Your task to perform on an android device: toggle airplane mode Image 0: 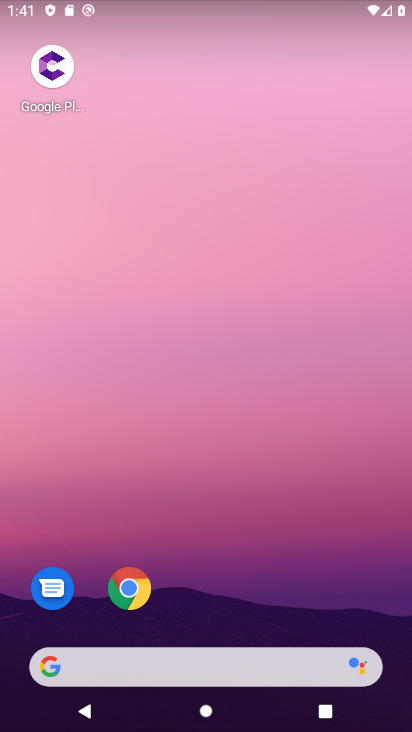
Step 0: drag from (178, 15) to (223, 651)
Your task to perform on an android device: toggle airplane mode Image 1: 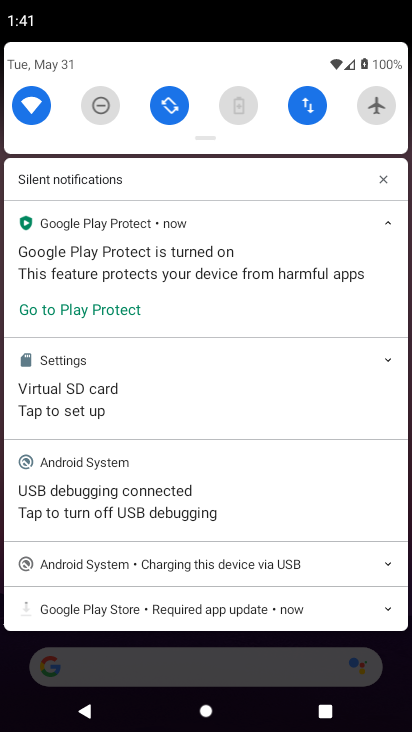
Step 1: click (371, 122)
Your task to perform on an android device: toggle airplane mode Image 2: 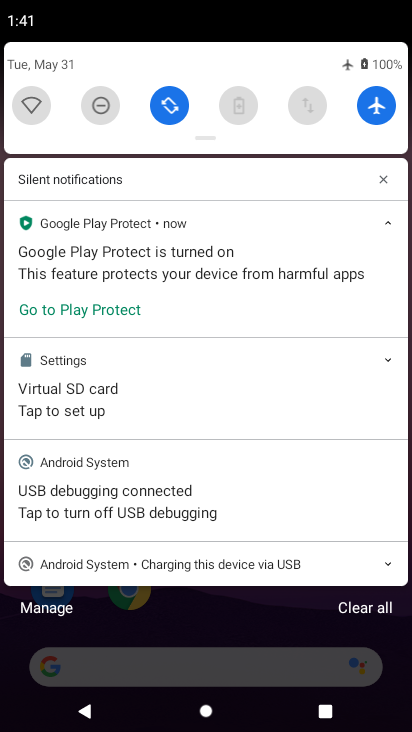
Step 2: task complete